Your task to perform on an android device: turn notification dots on Image 0: 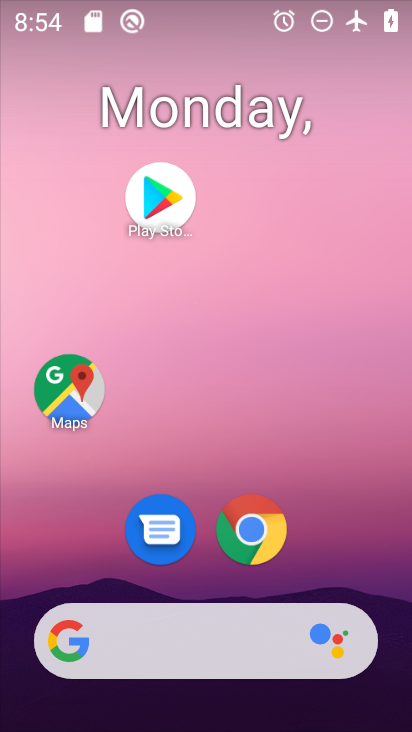
Step 0: drag from (333, 449) to (241, 104)
Your task to perform on an android device: turn notification dots on Image 1: 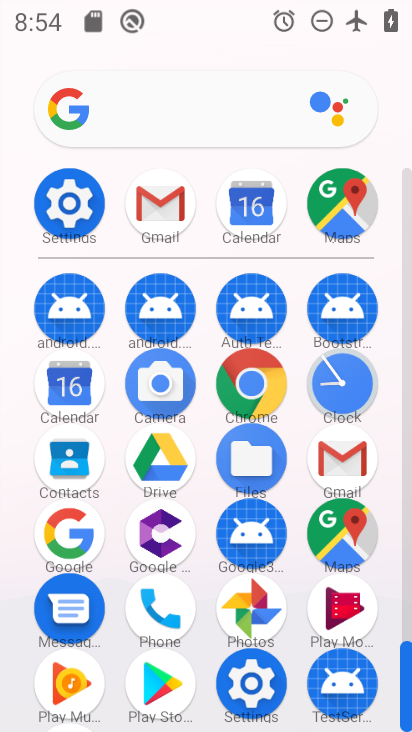
Step 1: click (76, 209)
Your task to perform on an android device: turn notification dots on Image 2: 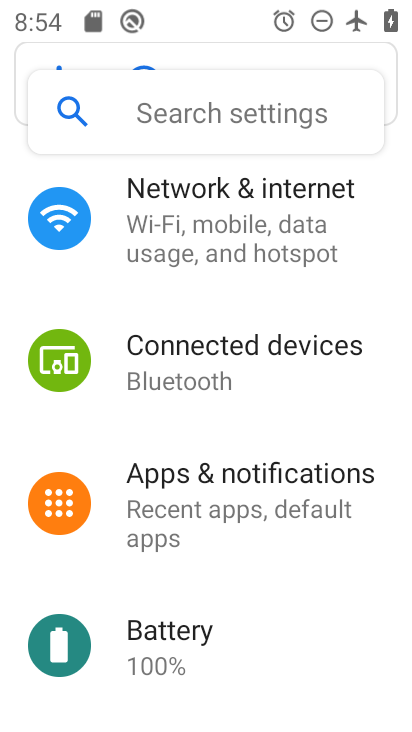
Step 2: click (250, 479)
Your task to perform on an android device: turn notification dots on Image 3: 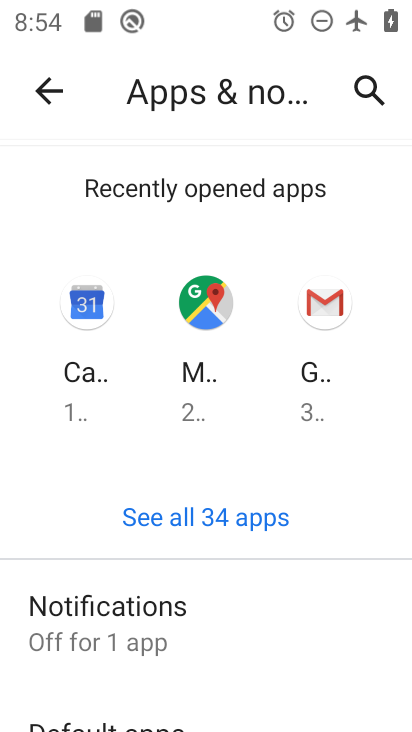
Step 3: click (135, 607)
Your task to perform on an android device: turn notification dots on Image 4: 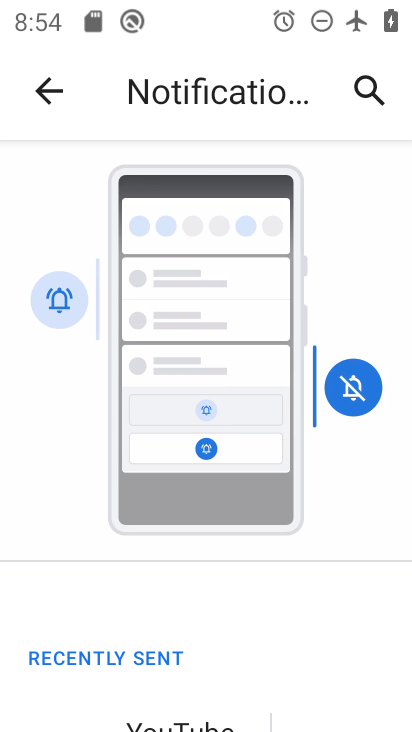
Step 4: drag from (242, 592) to (199, 325)
Your task to perform on an android device: turn notification dots on Image 5: 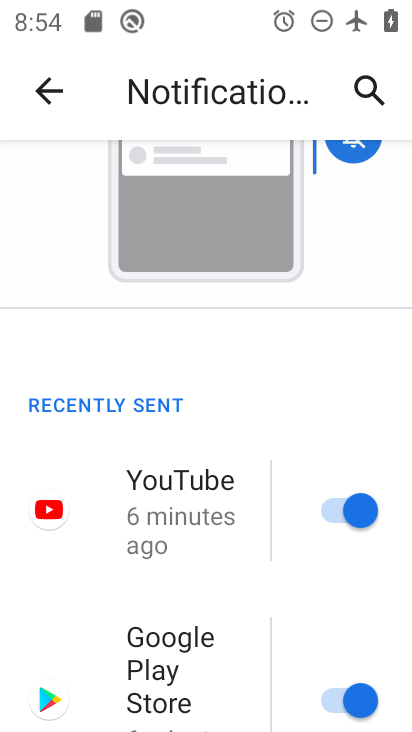
Step 5: drag from (257, 367) to (174, 117)
Your task to perform on an android device: turn notification dots on Image 6: 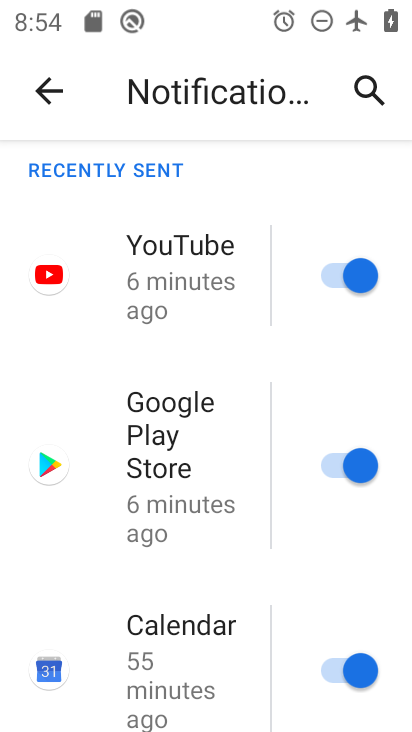
Step 6: drag from (240, 568) to (210, 322)
Your task to perform on an android device: turn notification dots on Image 7: 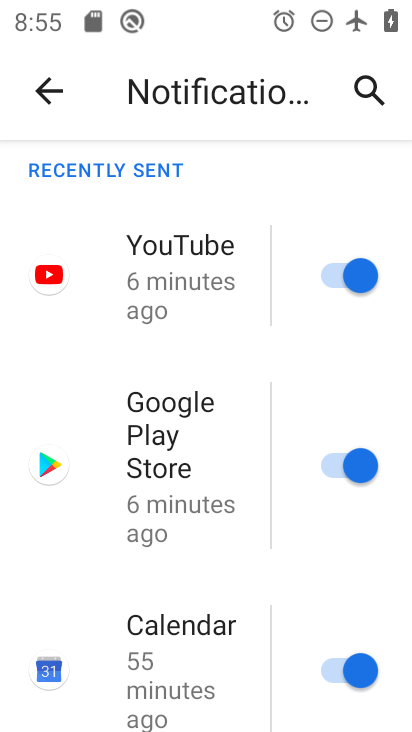
Step 7: drag from (290, 594) to (267, 362)
Your task to perform on an android device: turn notification dots on Image 8: 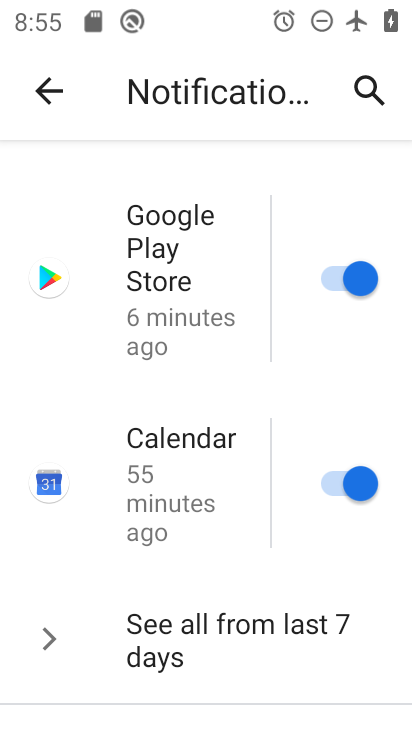
Step 8: drag from (281, 643) to (237, 240)
Your task to perform on an android device: turn notification dots on Image 9: 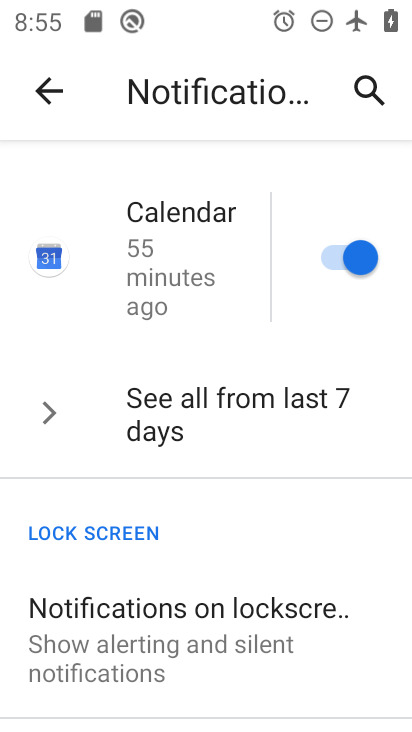
Step 9: drag from (219, 566) to (234, 345)
Your task to perform on an android device: turn notification dots on Image 10: 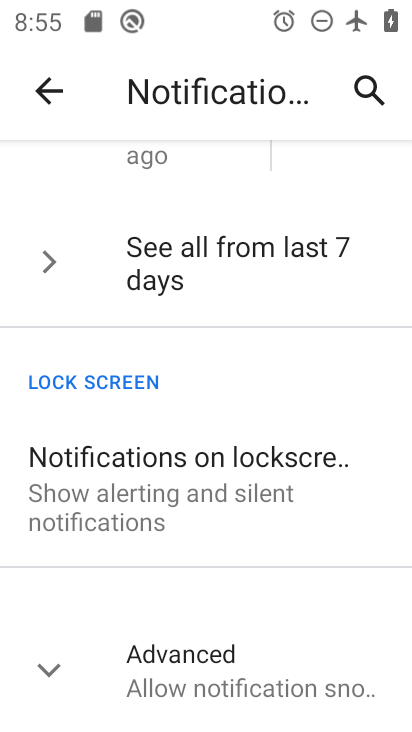
Step 10: click (48, 673)
Your task to perform on an android device: turn notification dots on Image 11: 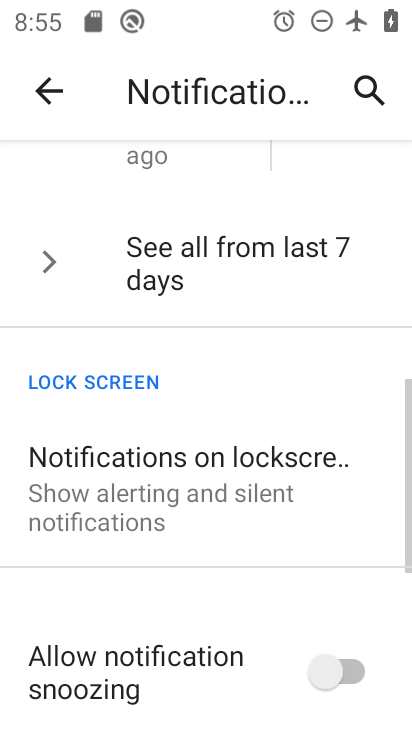
Step 11: task complete